Your task to perform on an android device: Open the phone app and click the voicemail tab. Image 0: 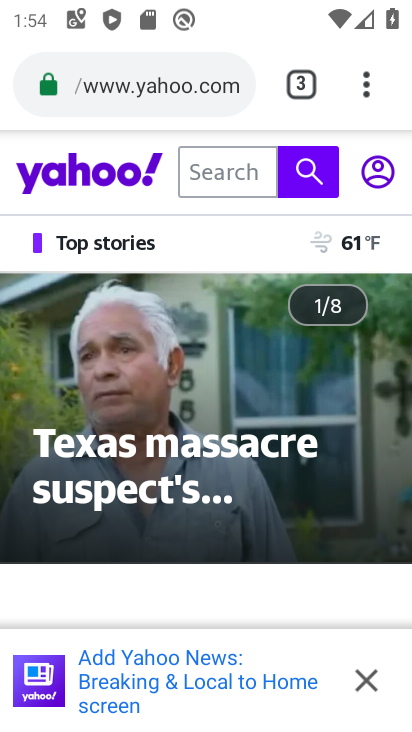
Step 0: press home button
Your task to perform on an android device: Open the phone app and click the voicemail tab. Image 1: 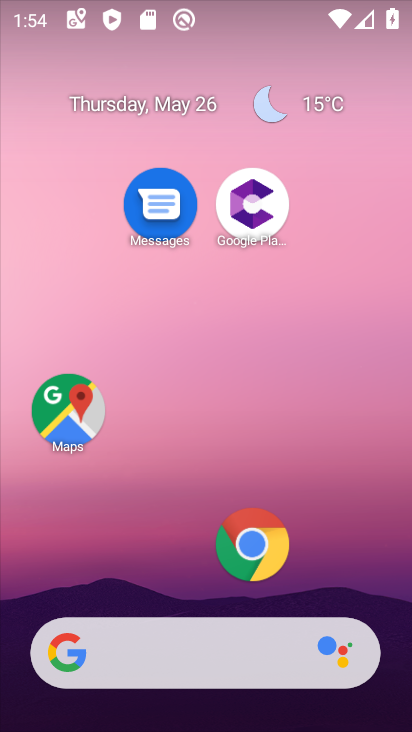
Step 1: drag from (147, 587) to (180, 36)
Your task to perform on an android device: Open the phone app and click the voicemail tab. Image 2: 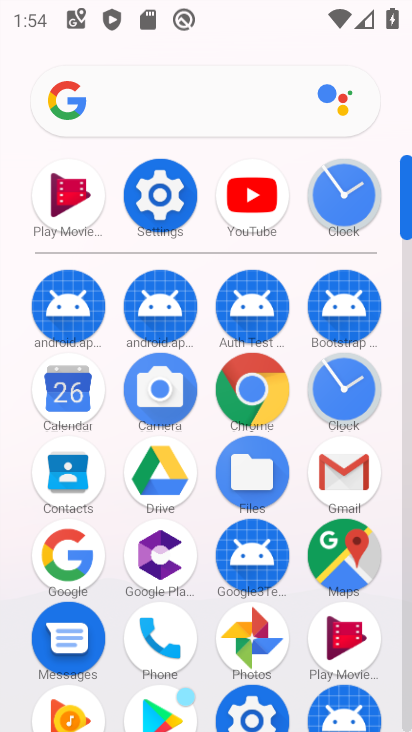
Step 2: click (154, 641)
Your task to perform on an android device: Open the phone app and click the voicemail tab. Image 3: 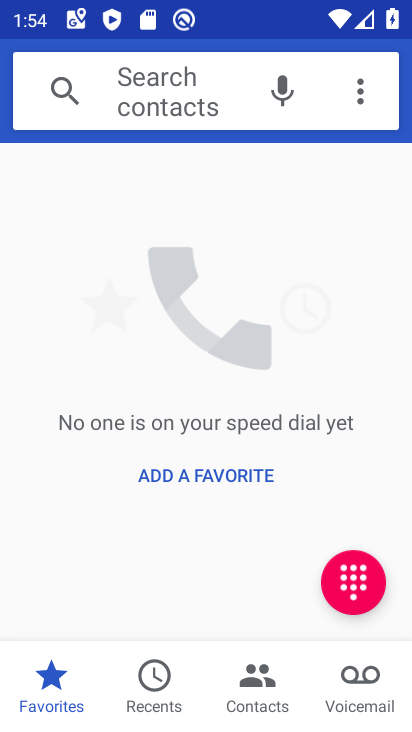
Step 3: click (357, 666)
Your task to perform on an android device: Open the phone app and click the voicemail tab. Image 4: 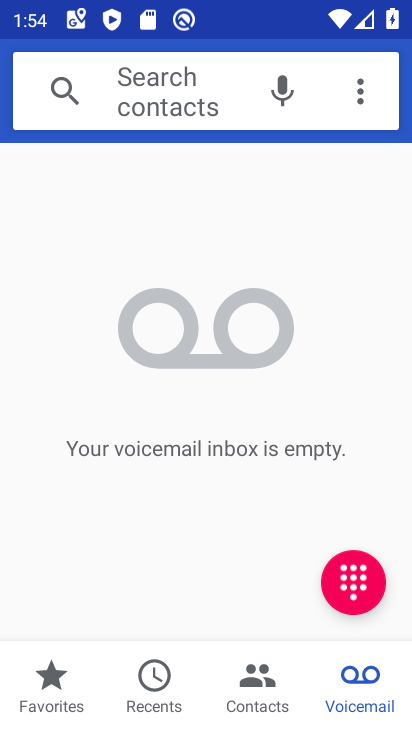
Step 4: task complete